Your task to perform on an android device: Toggle the flashlight Image 0: 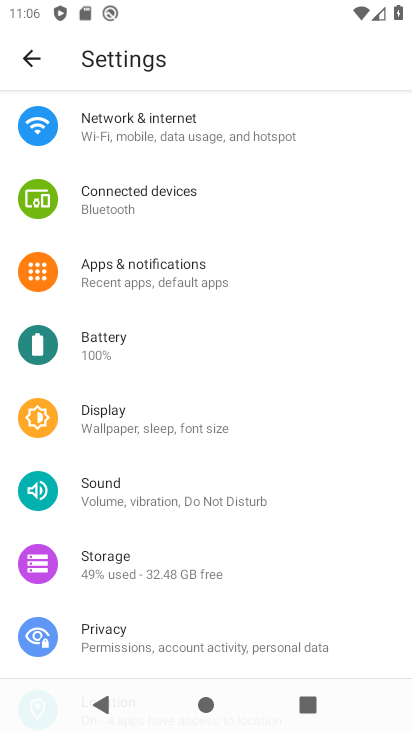
Step 0: click (138, 271)
Your task to perform on an android device: Toggle the flashlight Image 1: 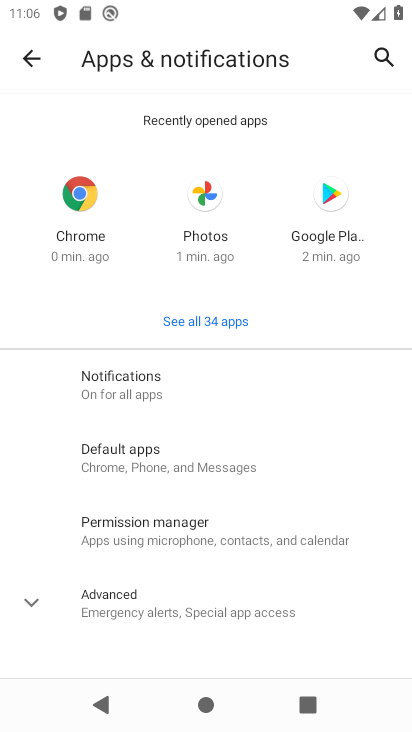
Step 1: press back button
Your task to perform on an android device: Toggle the flashlight Image 2: 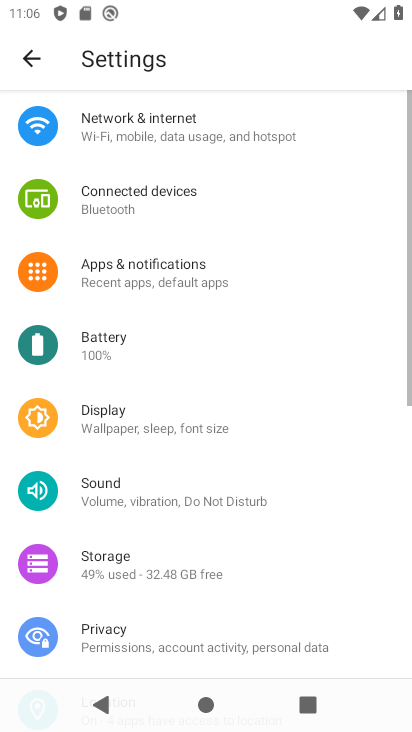
Step 2: click (113, 349)
Your task to perform on an android device: Toggle the flashlight Image 3: 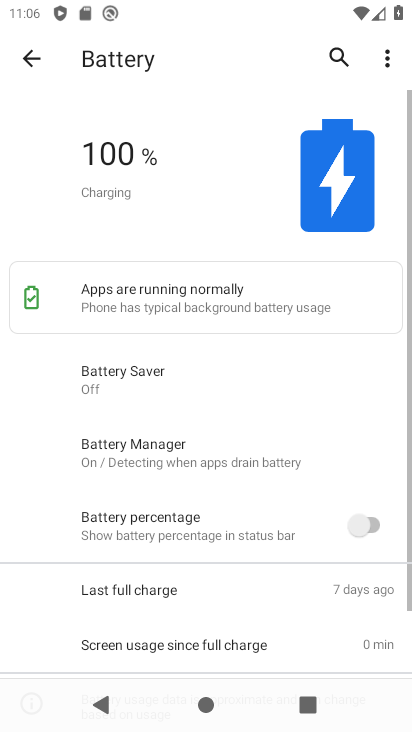
Step 3: drag from (182, 507) to (214, 342)
Your task to perform on an android device: Toggle the flashlight Image 4: 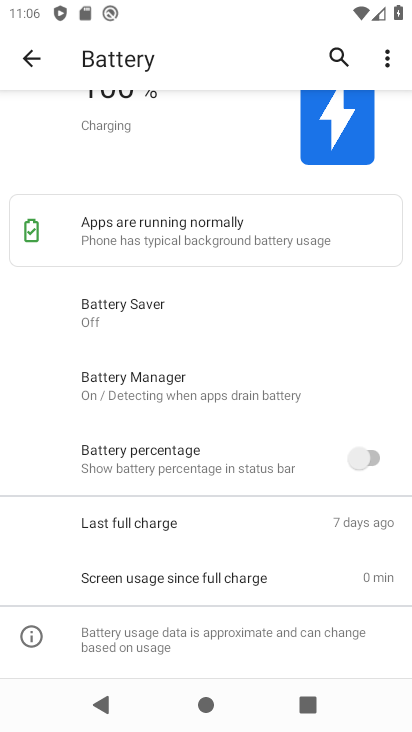
Step 4: press back button
Your task to perform on an android device: Toggle the flashlight Image 5: 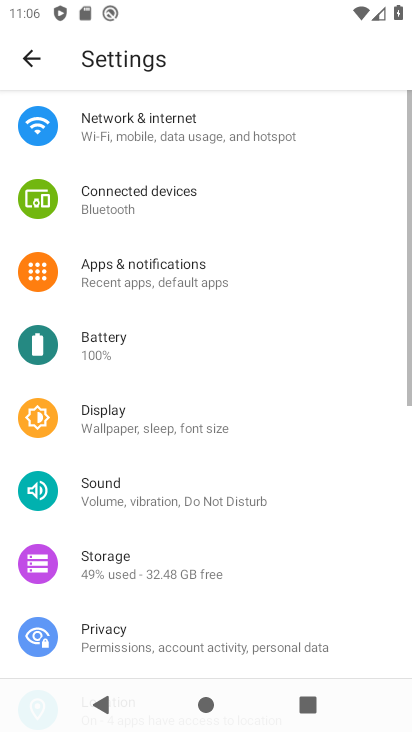
Step 5: click (140, 430)
Your task to perform on an android device: Toggle the flashlight Image 6: 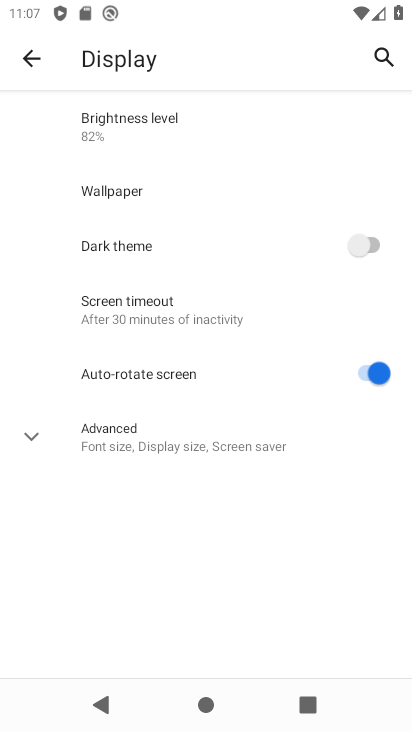
Step 6: click (126, 442)
Your task to perform on an android device: Toggle the flashlight Image 7: 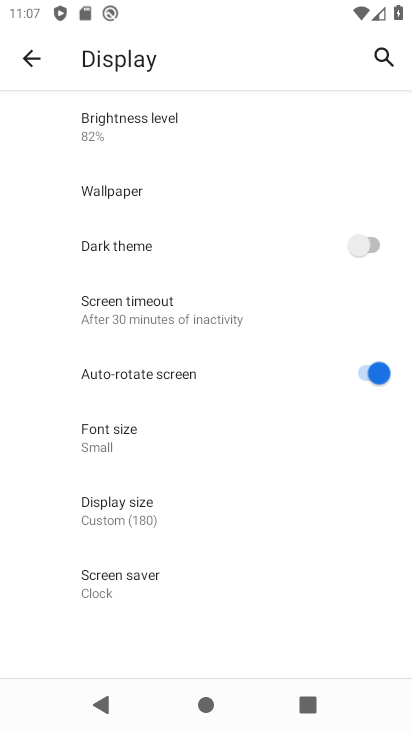
Step 7: drag from (138, 534) to (165, 368)
Your task to perform on an android device: Toggle the flashlight Image 8: 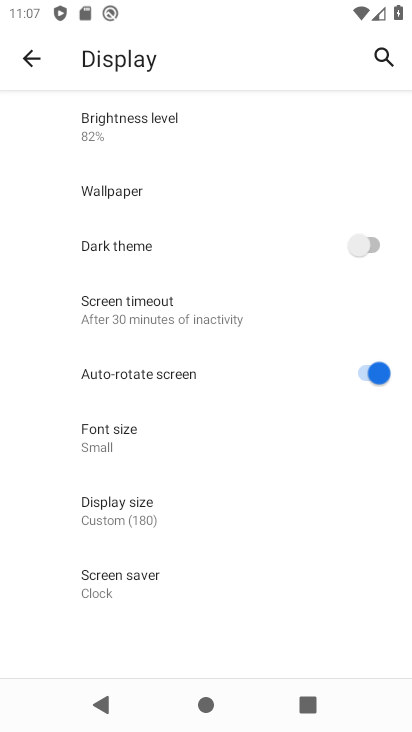
Step 8: press back button
Your task to perform on an android device: Toggle the flashlight Image 9: 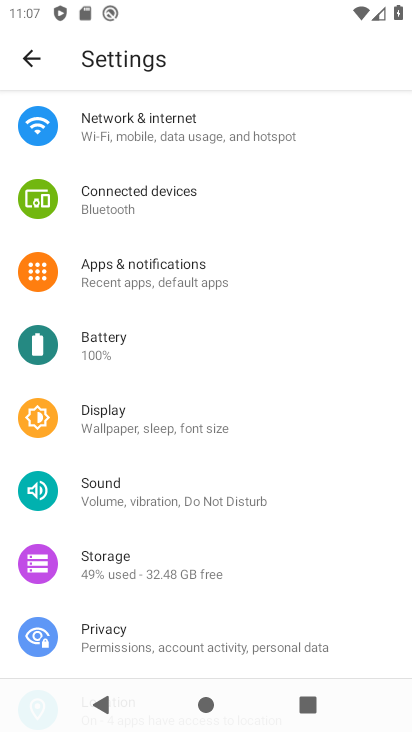
Step 9: drag from (142, 565) to (189, 389)
Your task to perform on an android device: Toggle the flashlight Image 10: 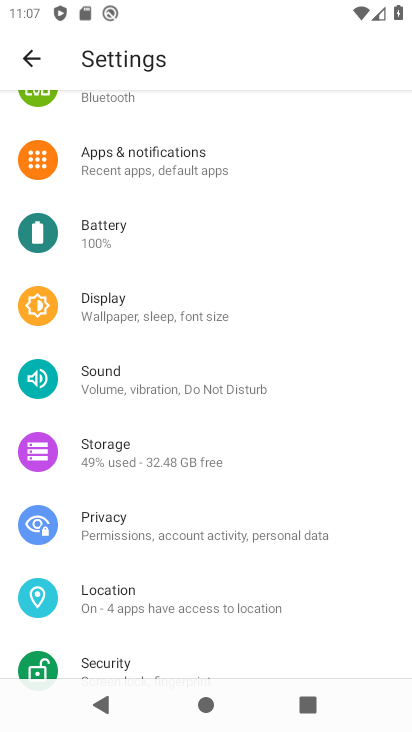
Step 10: drag from (173, 522) to (178, 426)
Your task to perform on an android device: Toggle the flashlight Image 11: 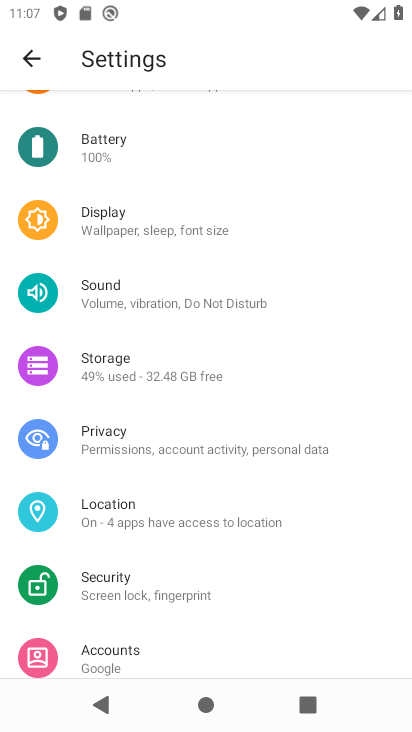
Step 11: drag from (171, 522) to (182, 444)
Your task to perform on an android device: Toggle the flashlight Image 12: 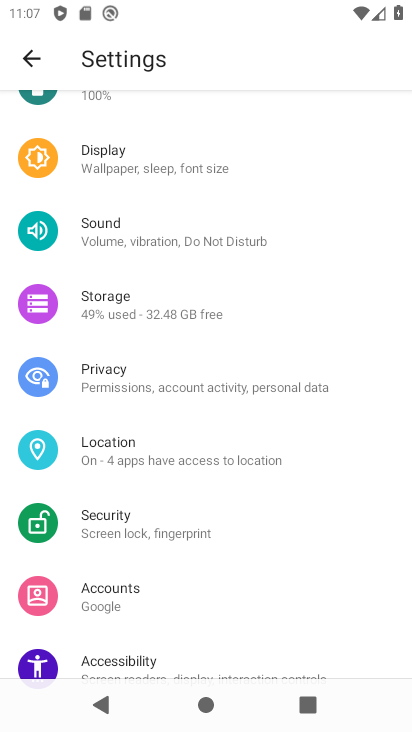
Step 12: drag from (167, 559) to (201, 434)
Your task to perform on an android device: Toggle the flashlight Image 13: 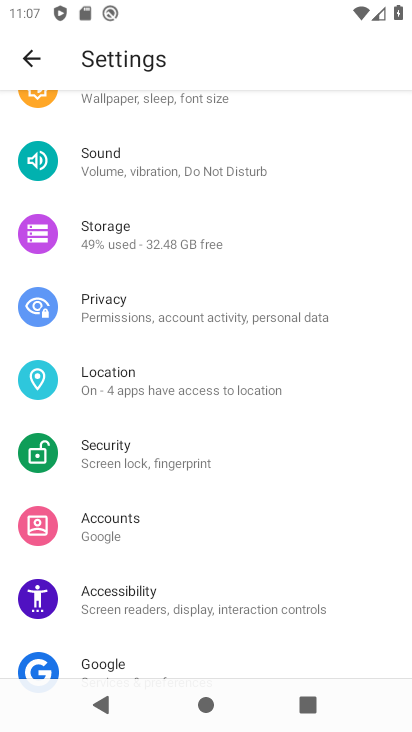
Step 13: click (137, 587)
Your task to perform on an android device: Toggle the flashlight Image 14: 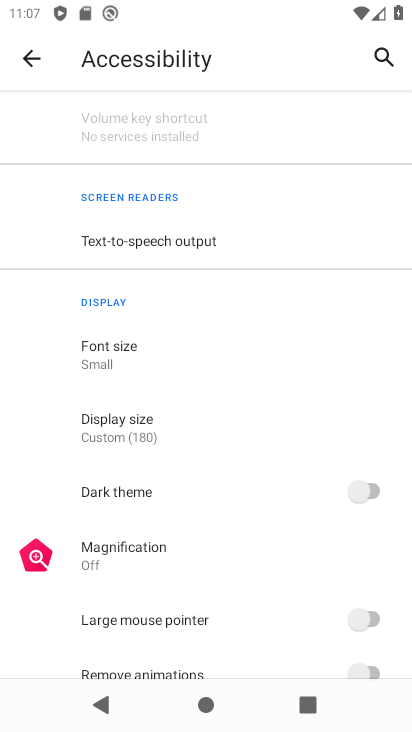
Step 14: task complete